Your task to perform on an android device: set the stopwatch Image 0: 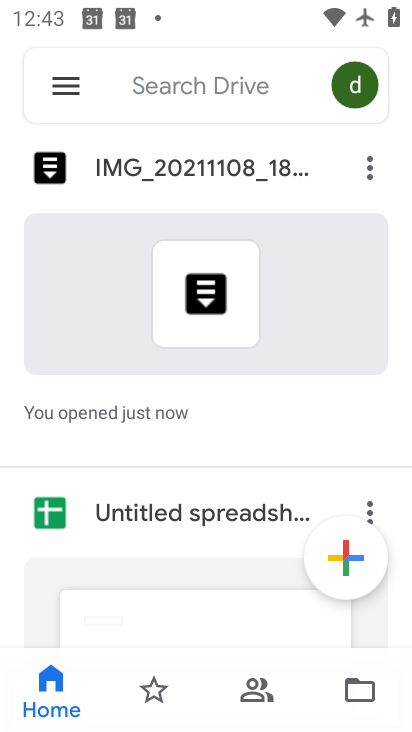
Step 0: press home button
Your task to perform on an android device: set the stopwatch Image 1: 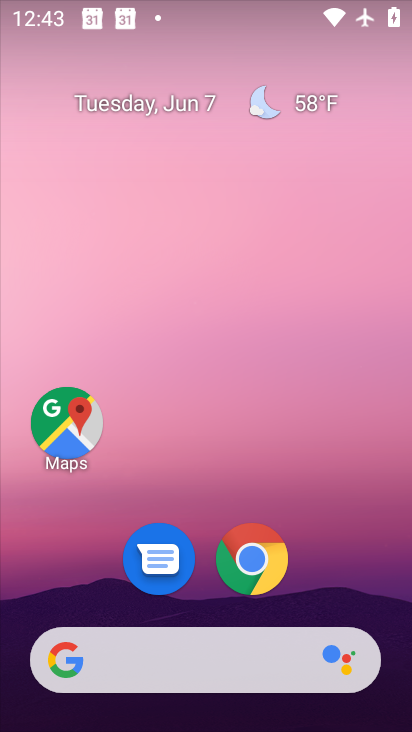
Step 1: drag from (308, 79) to (304, 37)
Your task to perform on an android device: set the stopwatch Image 2: 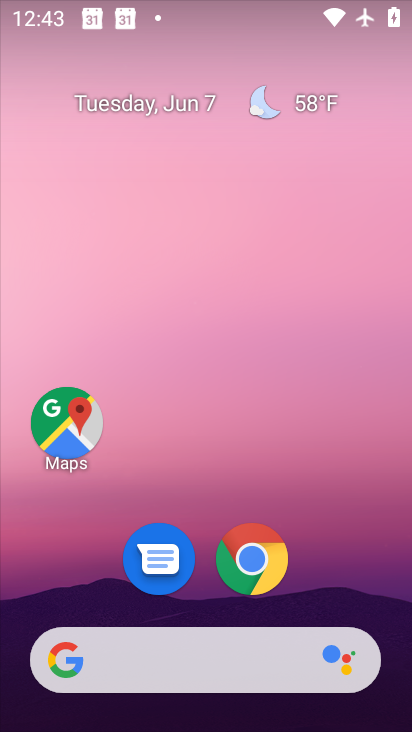
Step 2: drag from (387, 634) to (293, 35)
Your task to perform on an android device: set the stopwatch Image 3: 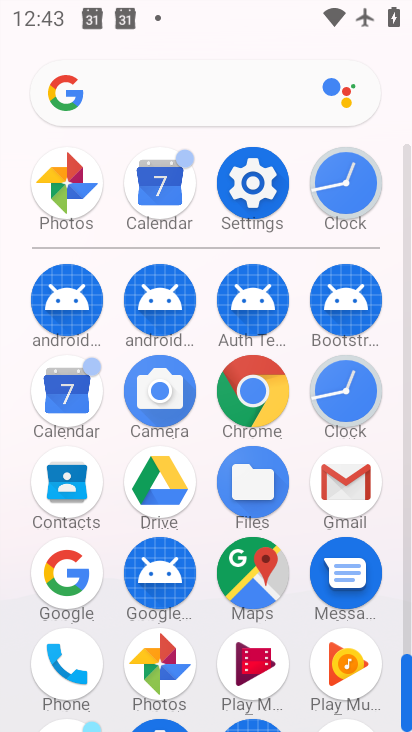
Step 3: click (345, 390)
Your task to perform on an android device: set the stopwatch Image 4: 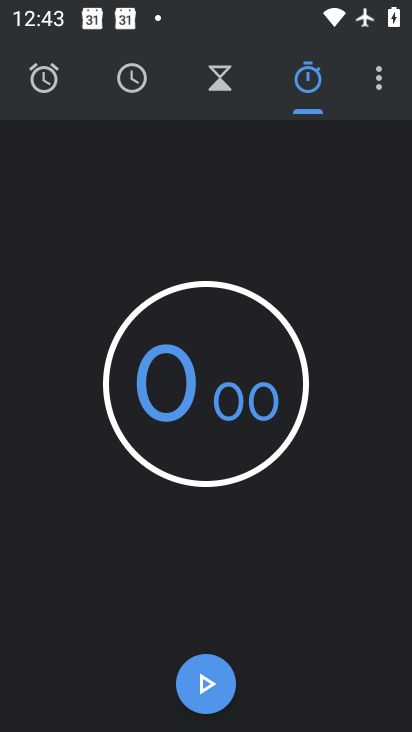
Step 4: task complete